Your task to perform on an android device: open device folders in google photos Image 0: 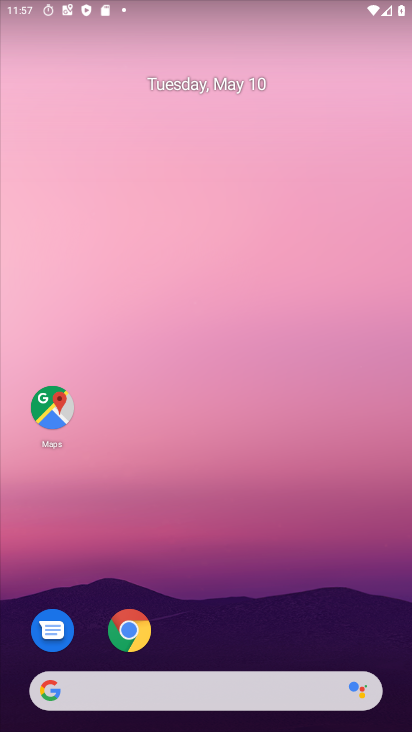
Step 0: drag from (259, 463) to (272, 80)
Your task to perform on an android device: open device folders in google photos Image 1: 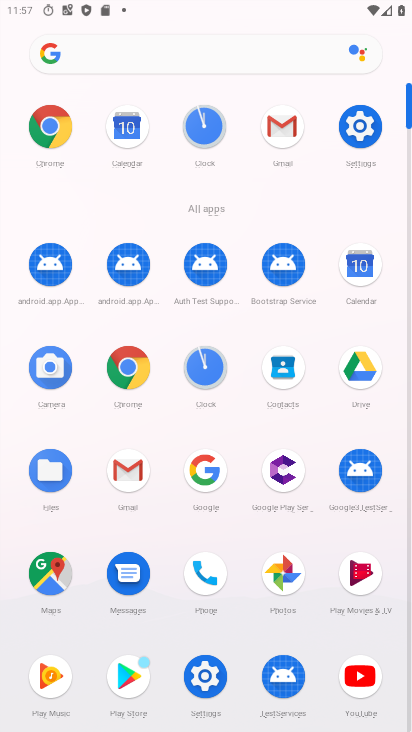
Step 1: click (287, 570)
Your task to perform on an android device: open device folders in google photos Image 2: 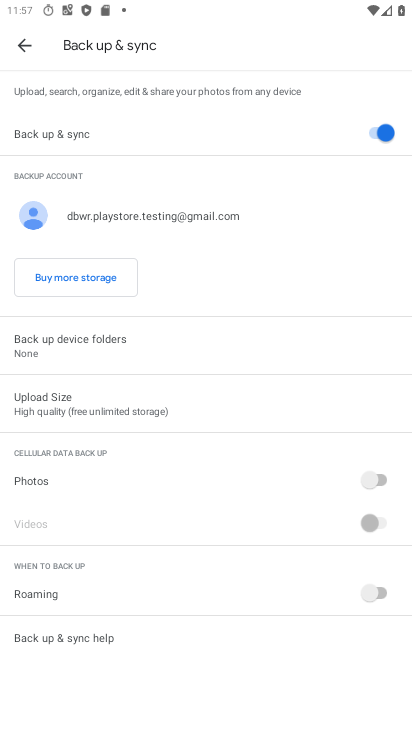
Step 2: click (25, 45)
Your task to perform on an android device: open device folders in google photos Image 3: 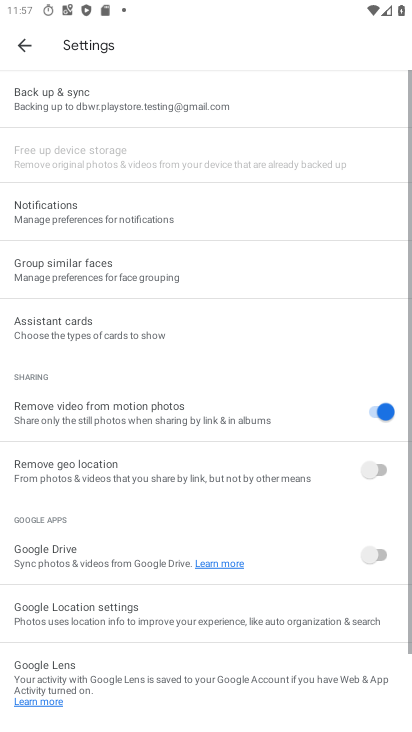
Step 3: click (25, 45)
Your task to perform on an android device: open device folders in google photos Image 4: 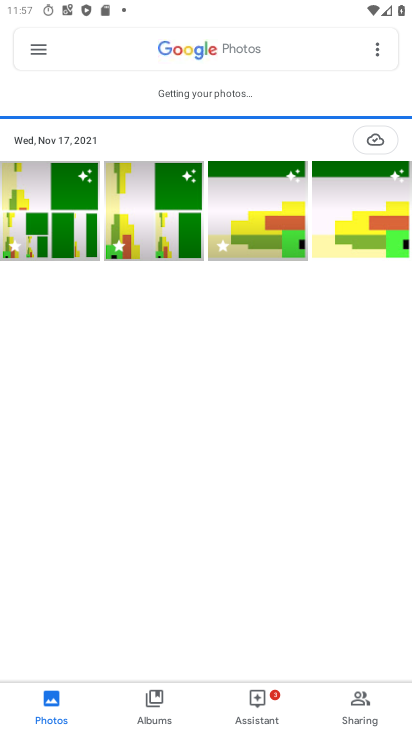
Step 4: click (25, 45)
Your task to perform on an android device: open device folders in google photos Image 5: 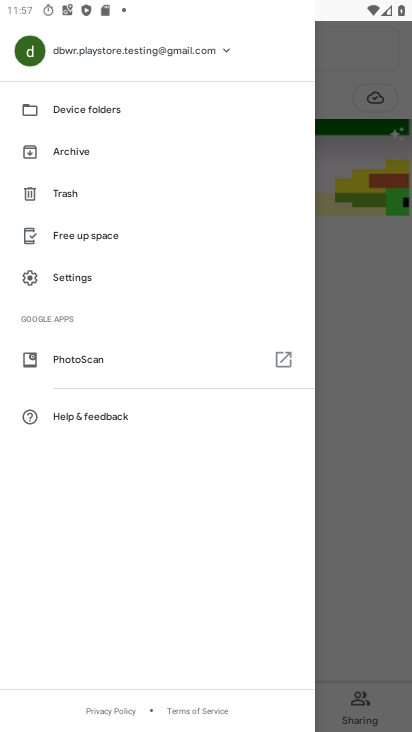
Step 5: click (40, 110)
Your task to perform on an android device: open device folders in google photos Image 6: 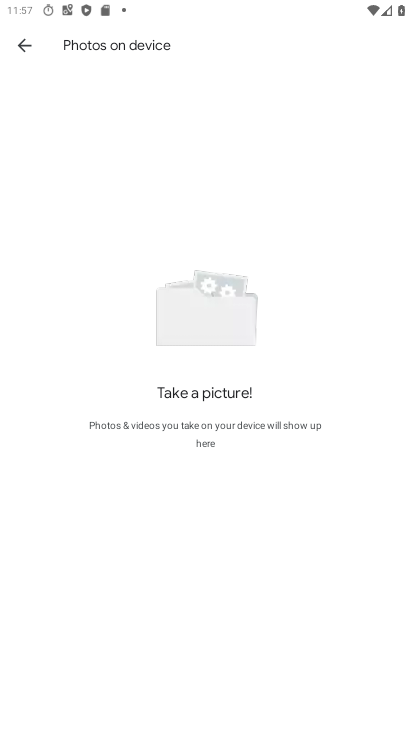
Step 6: task complete